Your task to perform on an android device: toggle location history Image 0: 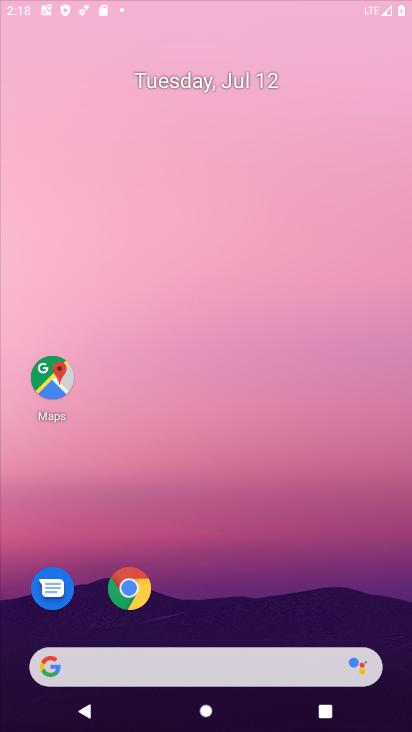
Step 0: click (213, 2)
Your task to perform on an android device: toggle location history Image 1: 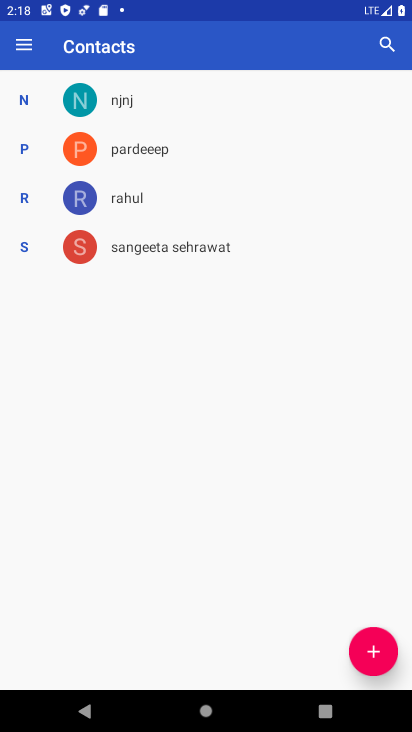
Step 1: press home button
Your task to perform on an android device: toggle location history Image 2: 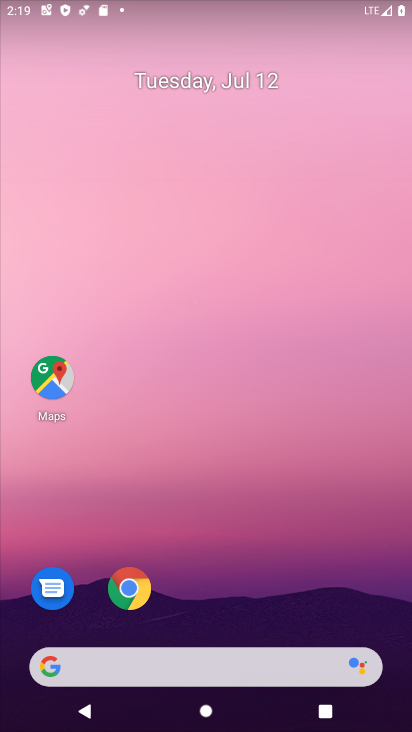
Step 2: click (48, 374)
Your task to perform on an android device: toggle location history Image 3: 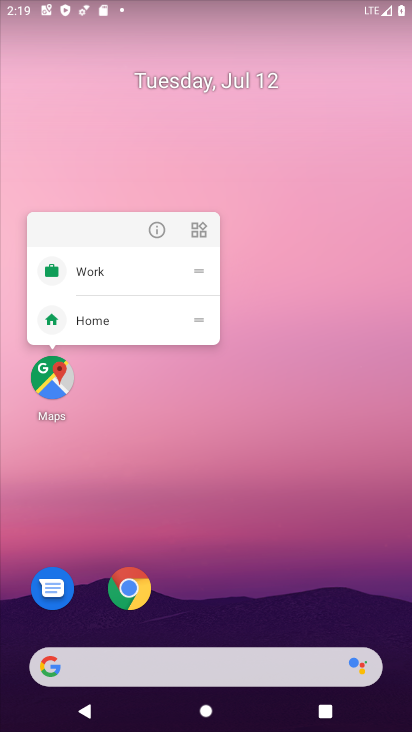
Step 3: click (51, 386)
Your task to perform on an android device: toggle location history Image 4: 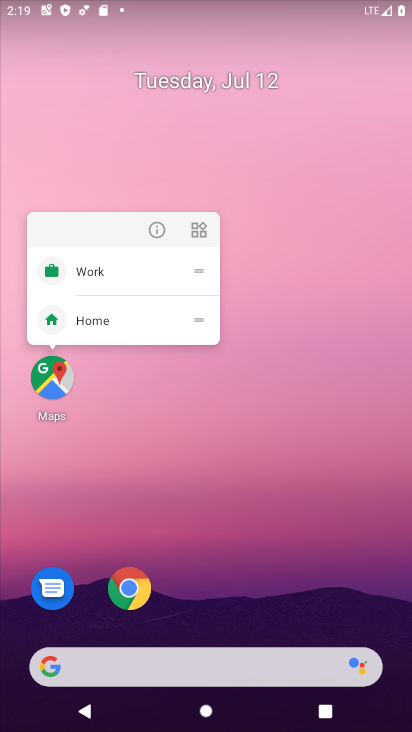
Step 4: click (49, 379)
Your task to perform on an android device: toggle location history Image 5: 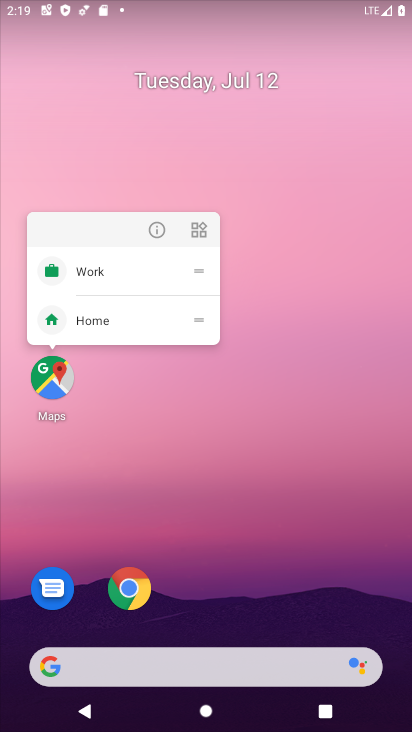
Step 5: click (49, 379)
Your task to perform on an android device: toggle location history Image 6: 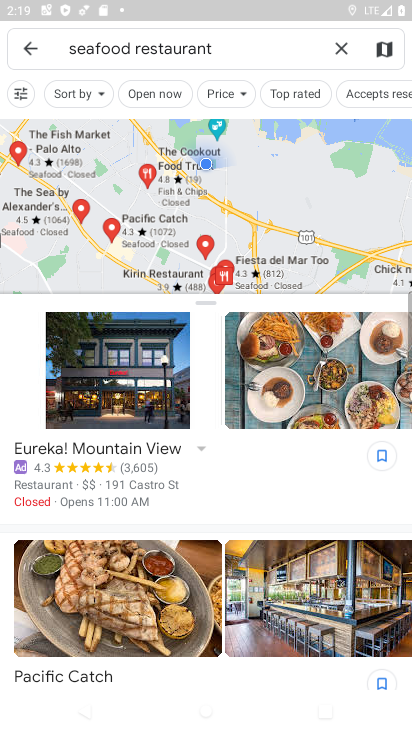
Step 6: click (340, 42)
Your task to perform on an android device: toggle location history Image 7: 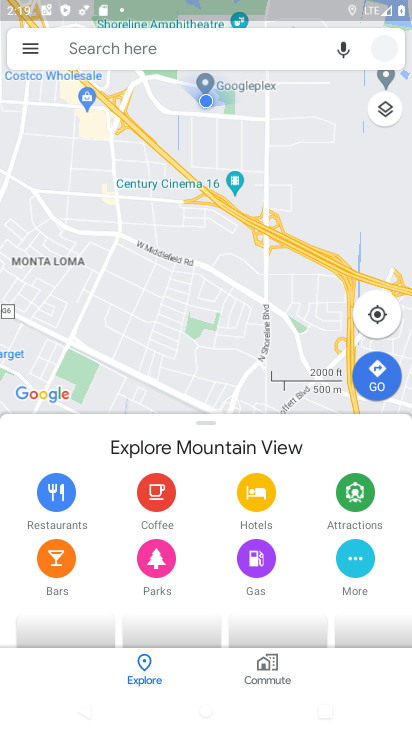
Step 7: click (35, 49)
Your task to perform on an android device: toggle location history Image 8: 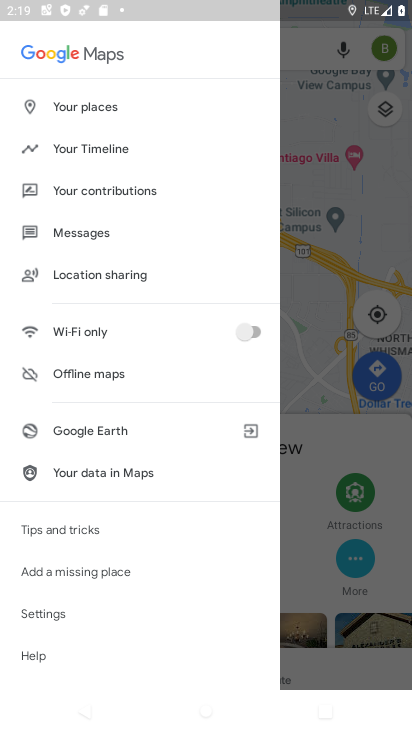
Step 8: click (92, 145)
Your task to perform on an android device: toggle location history Image 9: 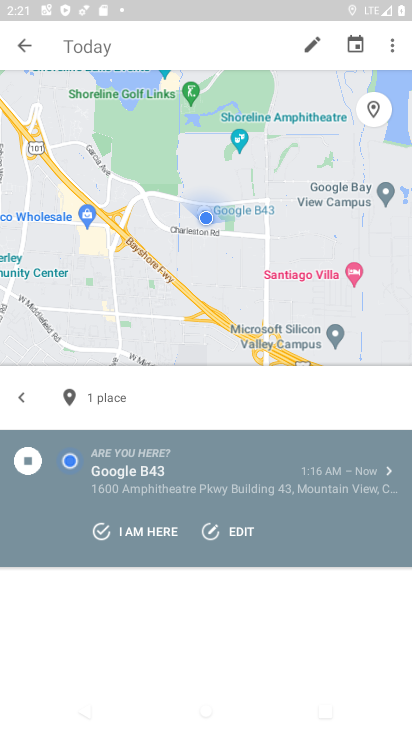
Step 9: click (385, 51)
Your task to perform on an android device: toggle location history Image 10: 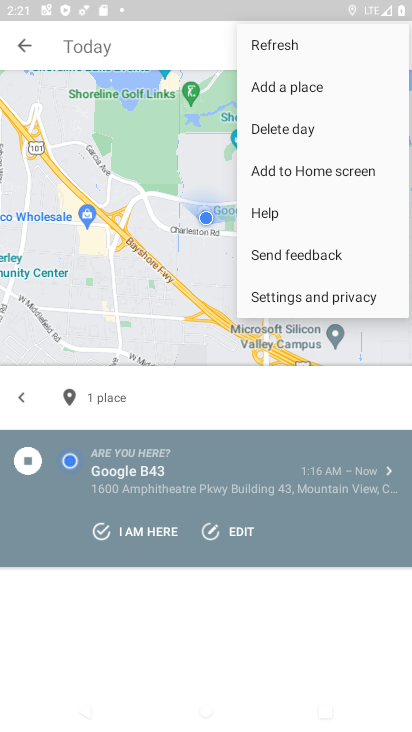
Step 10: click (320, 298)
Your task to perform on an android device: toggle location history Image 11: 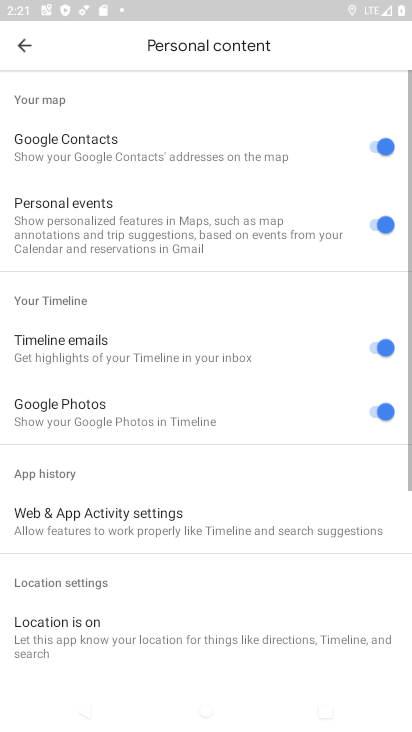
Step 11: drag from (215, 598) to (196, 179)
Your task to perform on an android device: toggle location history Image 12: 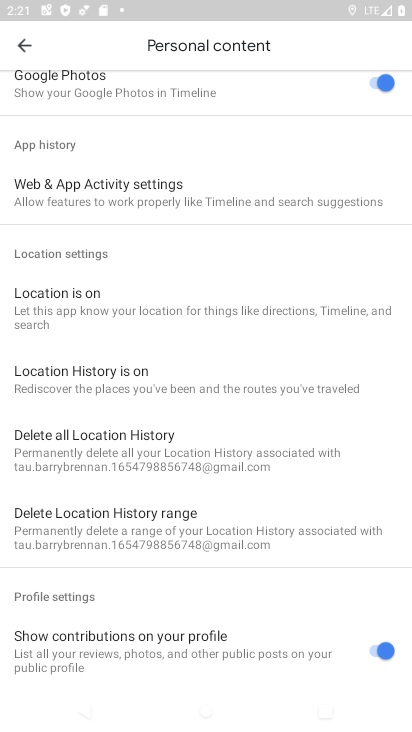
Step 12: click (161, 434)
Your task to perform on an android device: toggle location history Image 13: 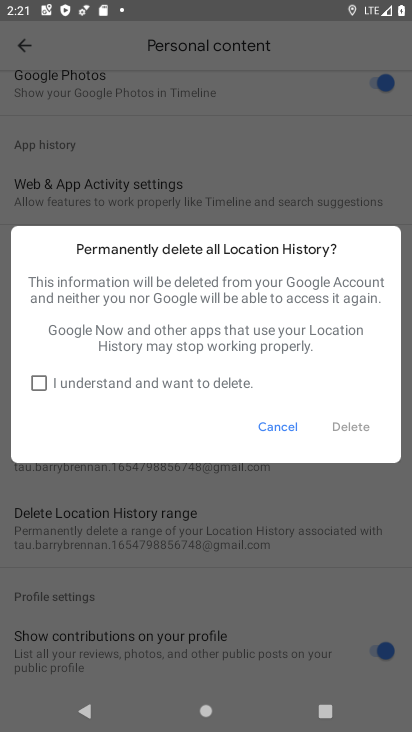
Step 13: click (38, 383)
Your task to perform on an android device: toggle location history Image 14: 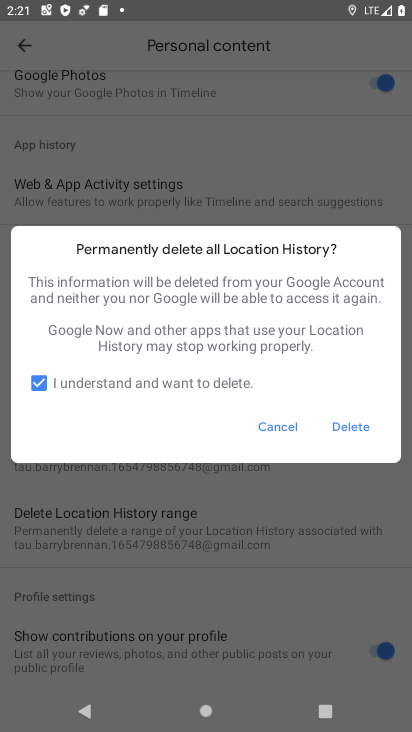
Step 14: click (351, 428)
Your task to perform on an android device: toggle location history Image 15: 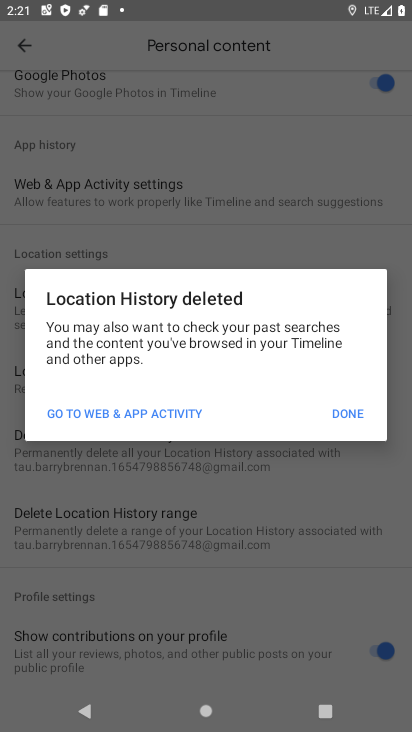
Step 15: click (351, 410)
Your task to perform on an android device: toggle location history Image 16: 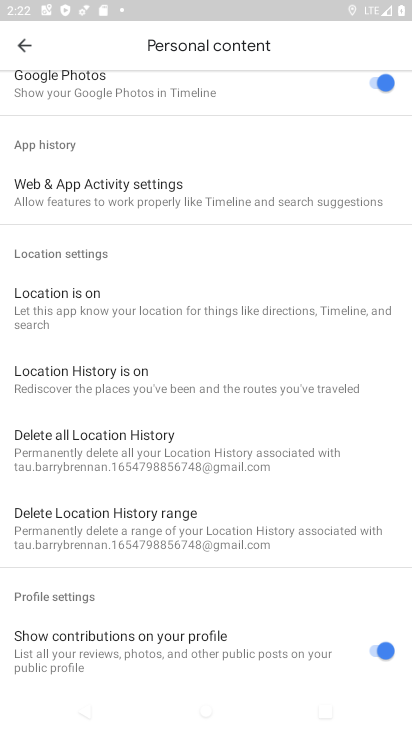
Step 16: task complete